Your task to perform on an android device: turn pop-ups off in chrome Image 0: 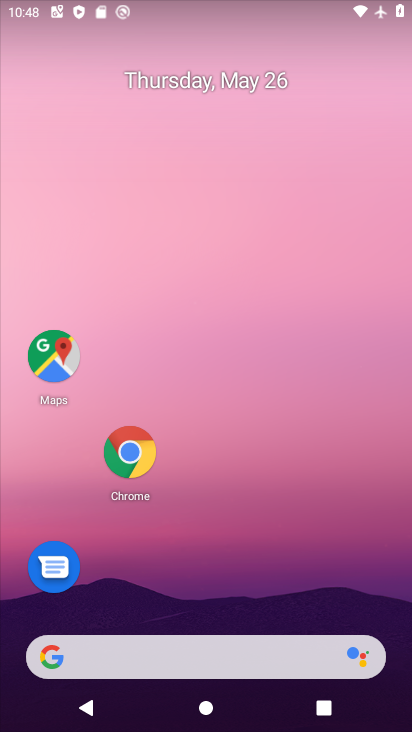
Step 0: press home button
Your task to perform on an android device: turn pop-ups off in chrome Image 1: 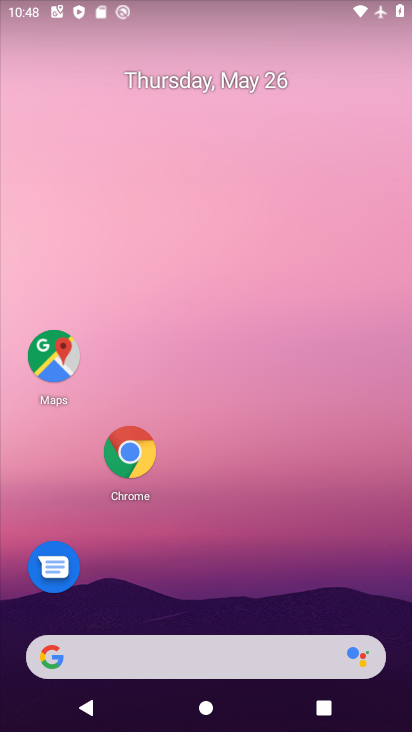
Step 1: click (132, 461)
Your task to perform on an android device: turn pop-ups off in chrome Image 2: 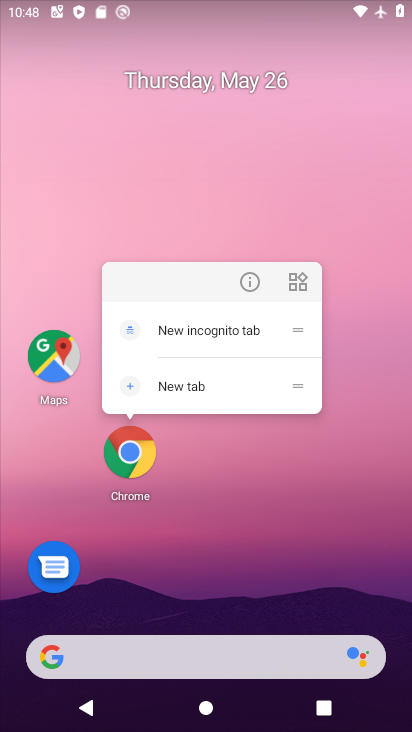
Step 2: click (130, 461)
Your task to perform on an android device: turn pop-ups off in chrome Image 3: 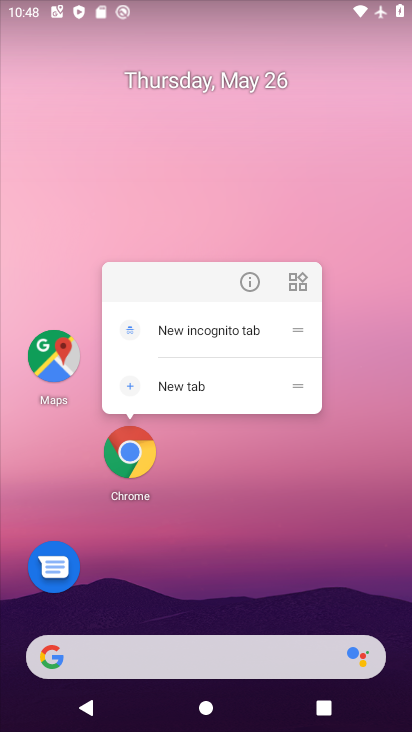
Step 3: click (137, 456)
Your task to perform on an android device: turn pop-ups off in chrome Image 4: 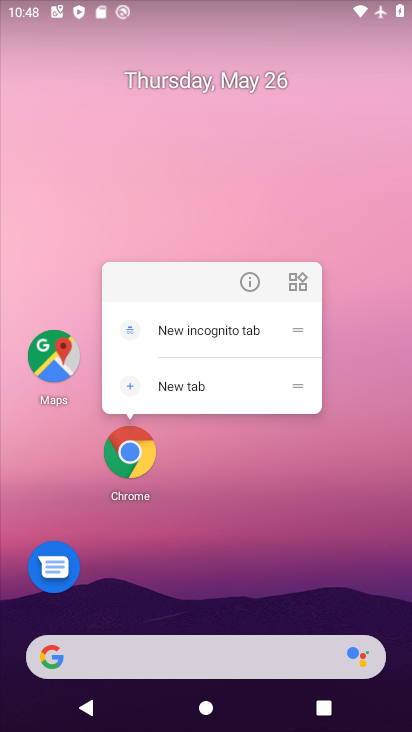
Step 4: click (131, 466)
Your task to perform on an android device: turn pop-ups off in chrome Image 5: 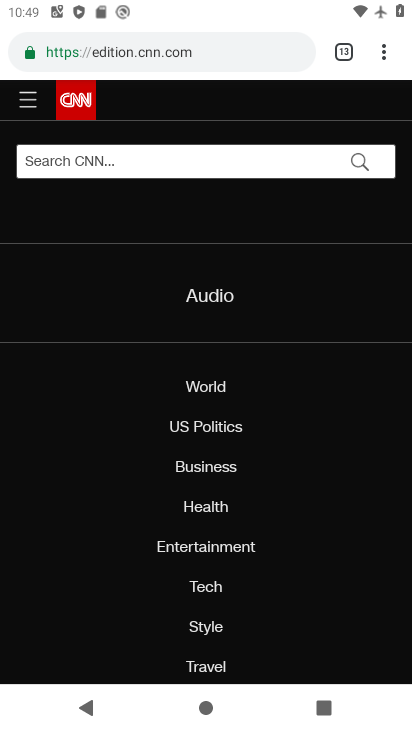
Step 5: drag from (385, 50) to (274, 606)
Your task to perform on an android device: turn pop-ups off in chrome Image 6: 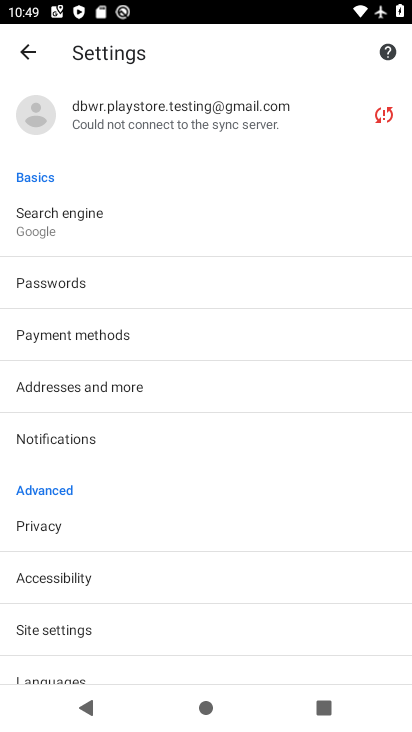
Step 6: drag from (143, 600) to (233, 317)
Your task to perform on an android device: turn pop-ups off in chrome Image 7: 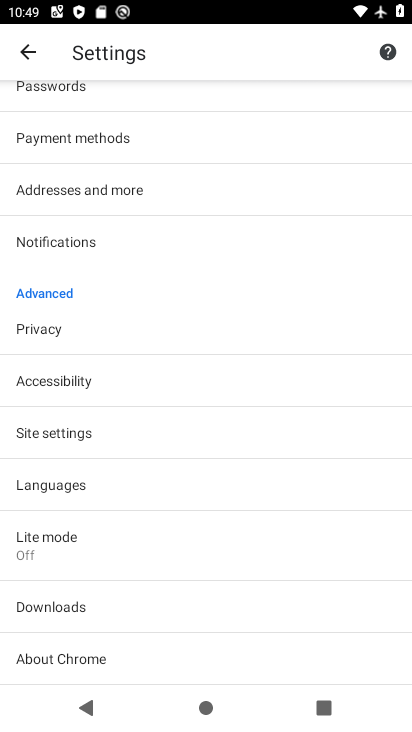
Step 7: click (88, 432)
Your task to perform on an android device: turn pop-ups off in chrome Image 8: 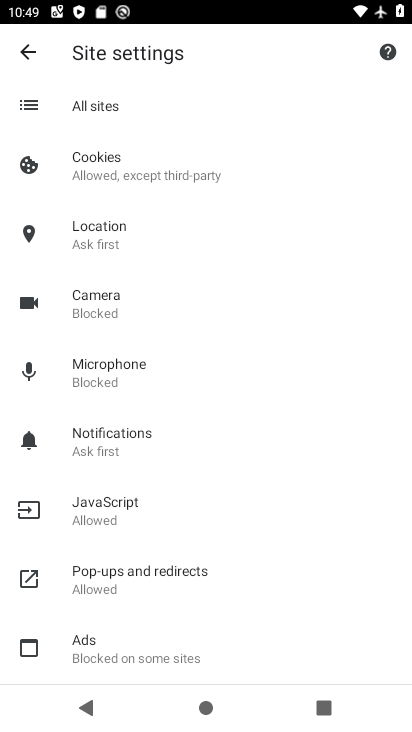
Step 8: click (147, 576)
Your task to perform on an android device: turn pop-ups off in chrome Image 9: 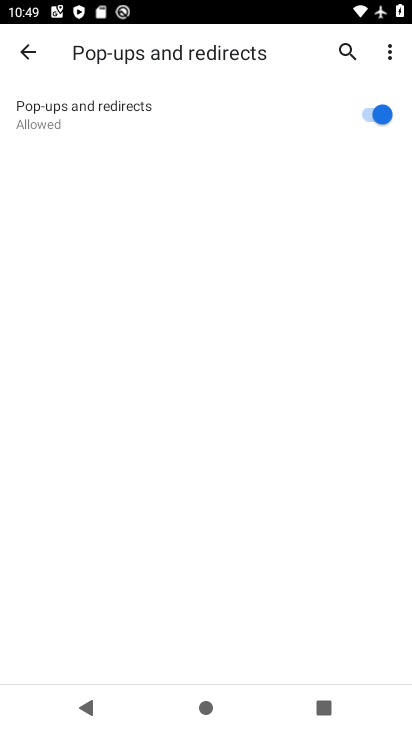
Step 9: click (364, 107)
Your task to perform on an android device: turn pop-ups off in chrome Image 10: 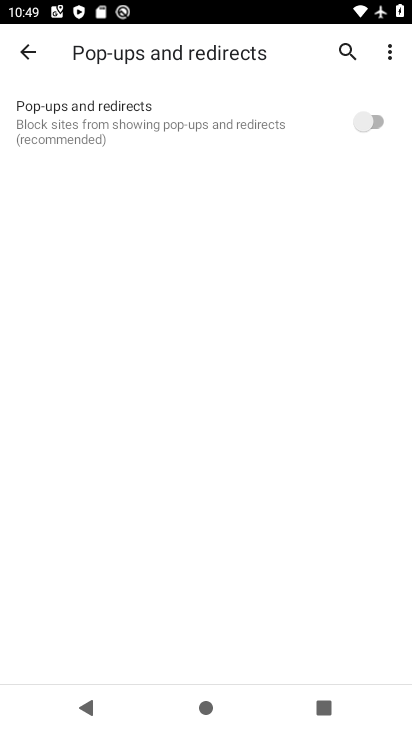
Step 10: task complete